Your task to perform on an android device: toggle location history Image 0: 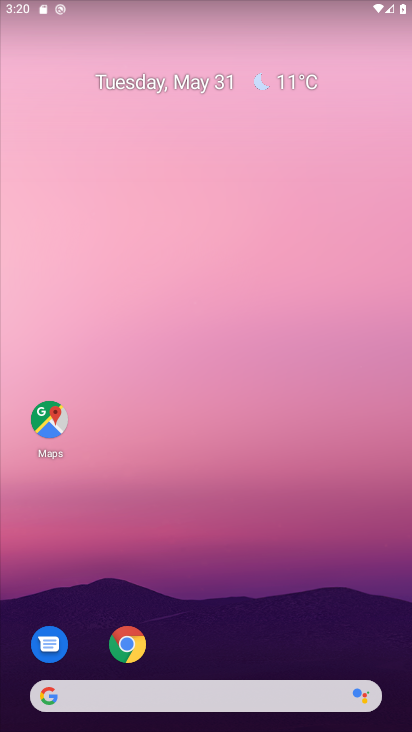
Step 0: drag from (235, 628) to (144, 121)
Your task to perform on an android device: toggle location history Image 1: 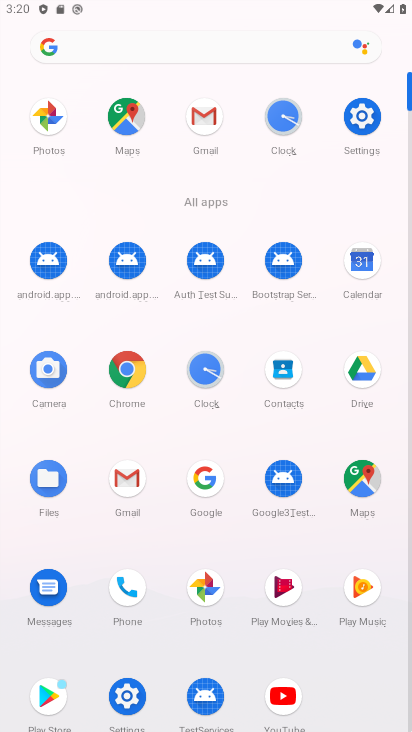
Step 1: click (359, 469)
Your task to perform on an android device: toggle location history Image 2: 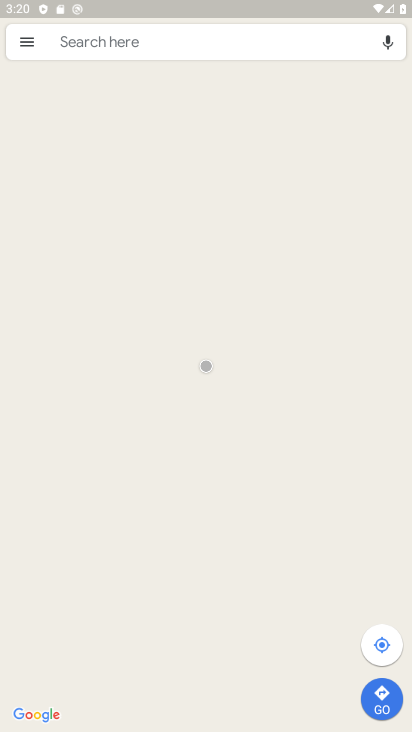
Step 2: click (32, 48)
Your task to perform on an android device: toggle location history Image 3: 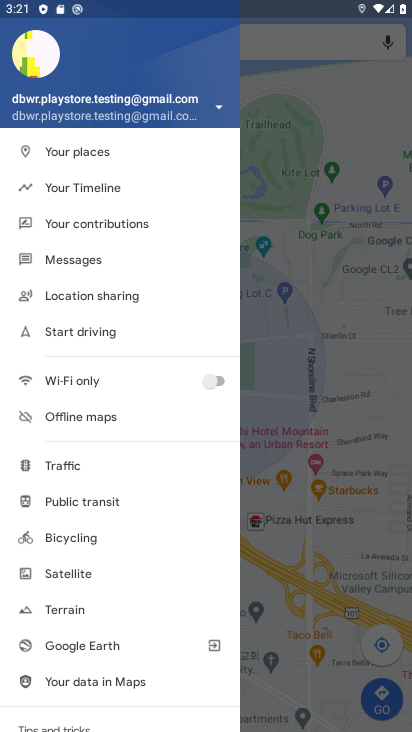
Step 3: click (94, 191)
Your task to perform on an android device: toggle location history Image 4: 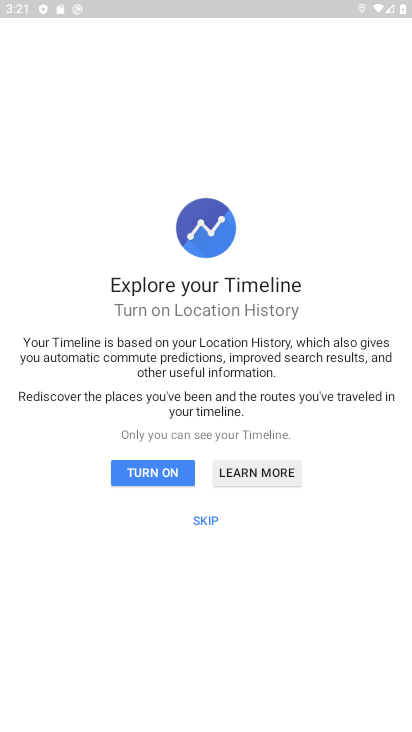
Step 4: click (170, 476)
Your task to perform on an android device: toggle location history Image 5: 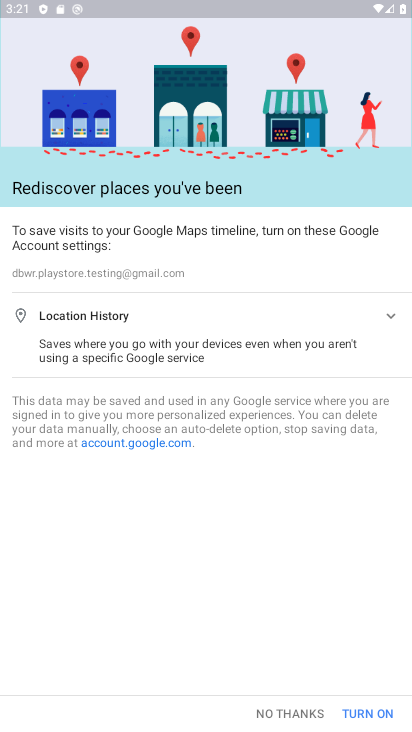
Step 5: click (365, 712)
Your task to perform on an android device: toggle location history Image 6: 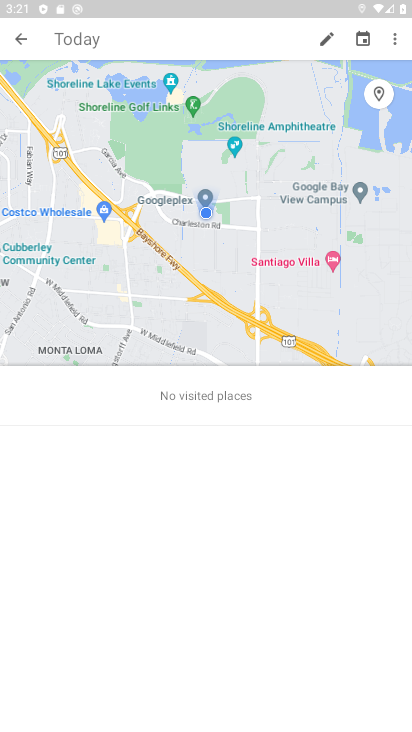
Step 6: task complete